Your task to perform on an android device: What is the news today? Image 0: 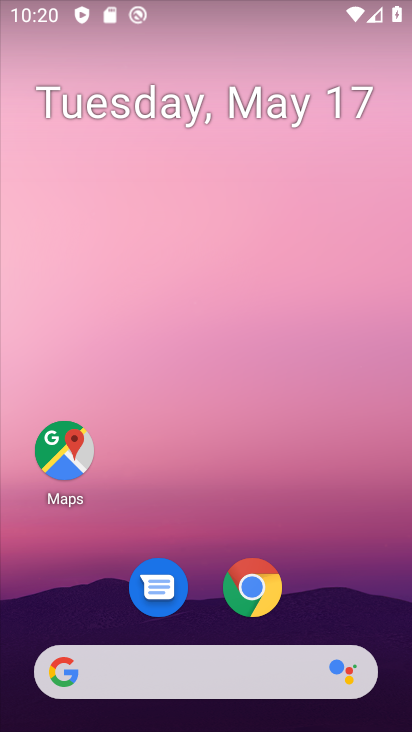
Step 0: drag from (318, 600) to (165, 78)
Your task to perform on an android device: What is the news today? Image 1: 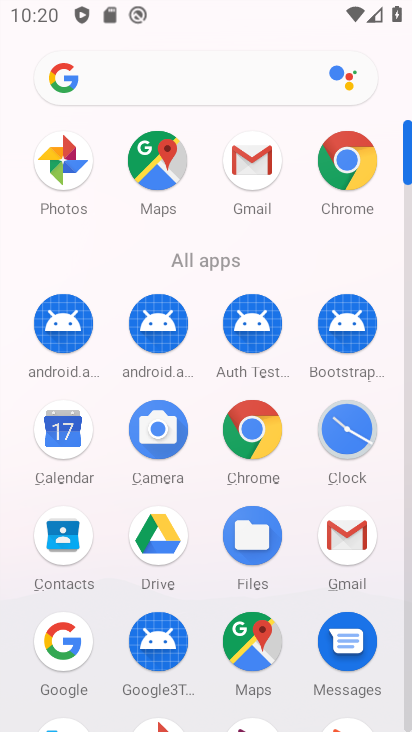
Step 1: drag from (200, 499) to (197, 407)
Your task to perform on an android device: What is the news today? Image 2: 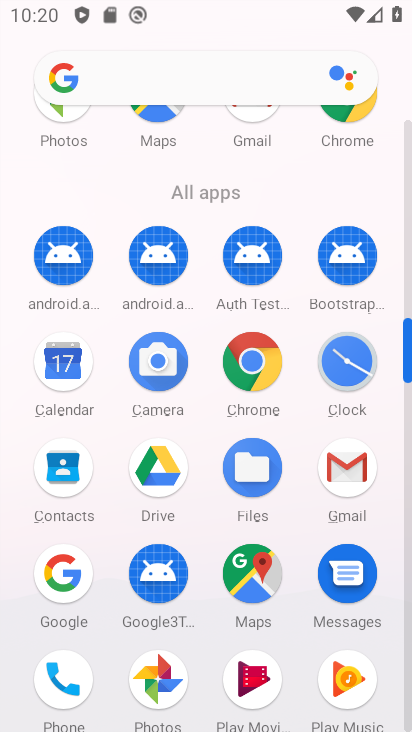
Step 2: click (57, 570)
Your task to perform on an android device: What is the news today? Image 3: 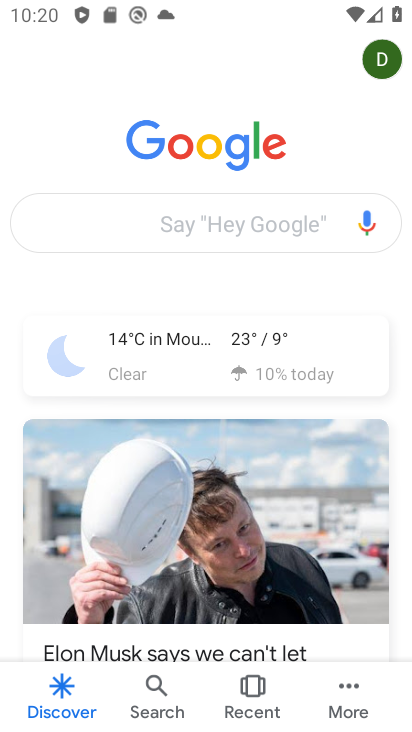
Step 3: click (211, 226)
Your task to perform on an android device: What is the news today? Image 4: 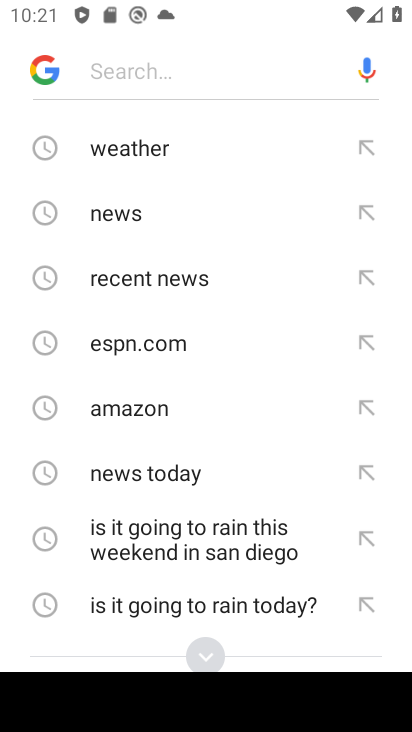
Step 4: type "news today"
Your task to perform on an android device: What is the news today? Image 5: 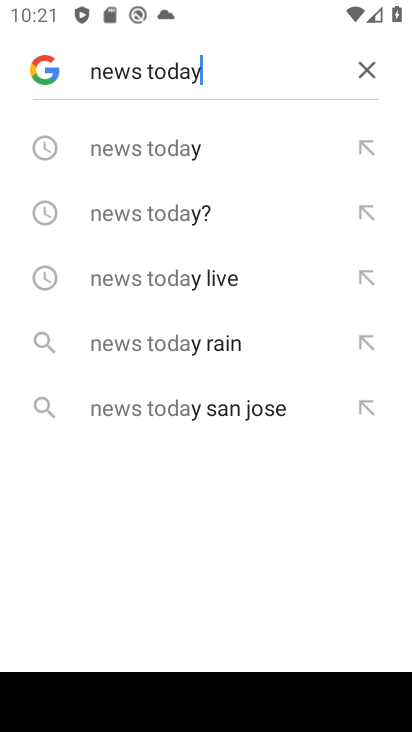
Step 5: type ""
Your task to perform on an android device: What is the news today? Image 6: 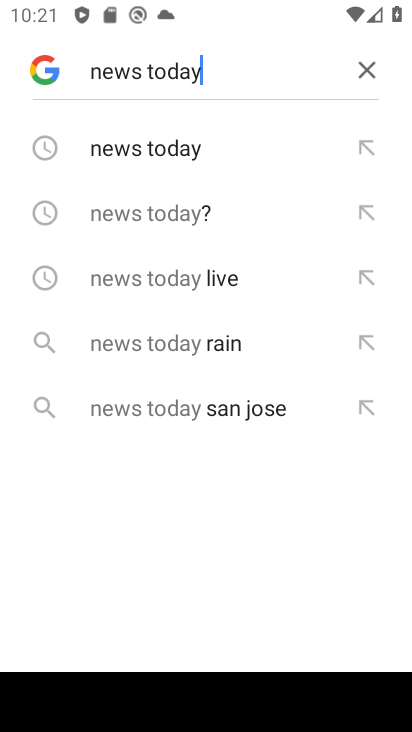
Step 6: click (100, 148)
Your task to perform on an android device: What is the news today? Image 7: 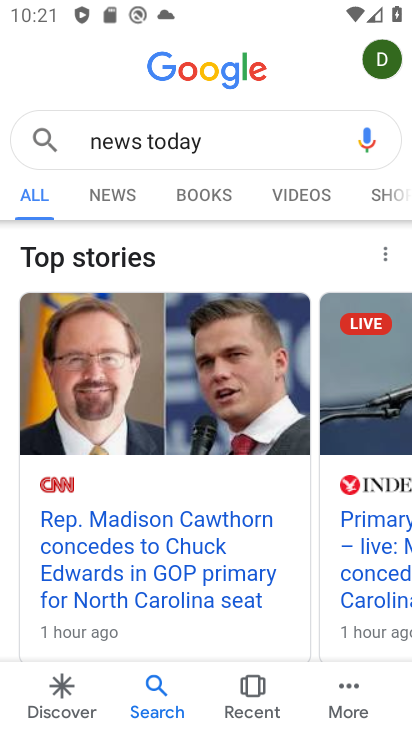
Step 7: task complete